Your task to perform on an android device: Is it going to rain today? Image 0: 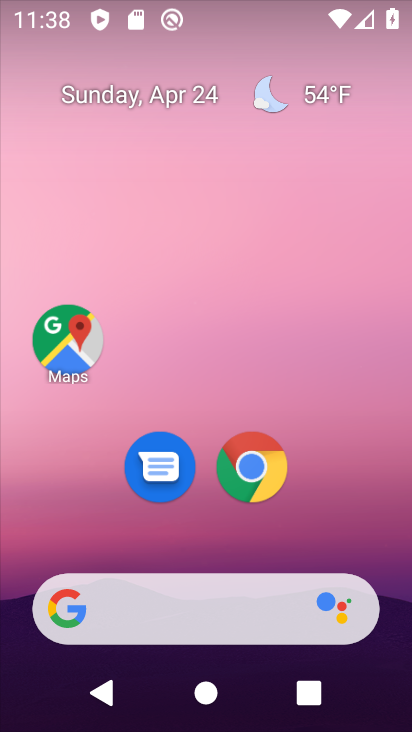
Step 0: drag from (218, 528) to (305, 144)
Your task to perform on an android device: Is it going to rain today? Image 1: 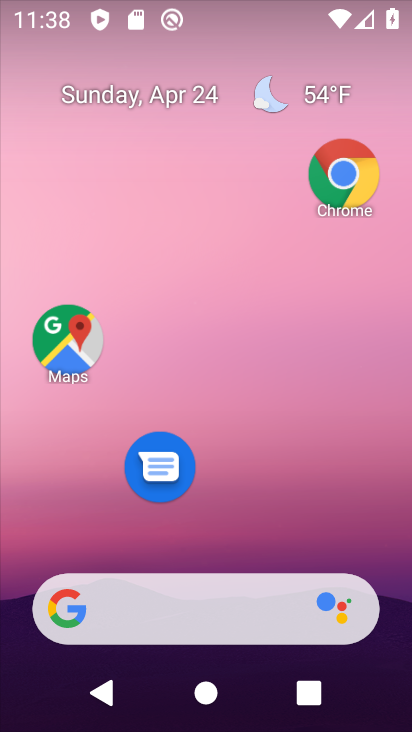
Step 1: click (172, 586)
Your task to perform on an android device: Is it going to rain today? Image 2: 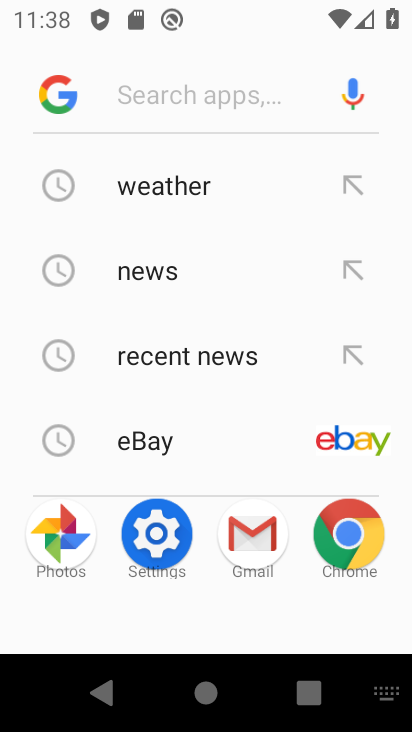
Step 2: click (171, 84)
Your task to perform on an android device: Is it going to rain today? Image 3: 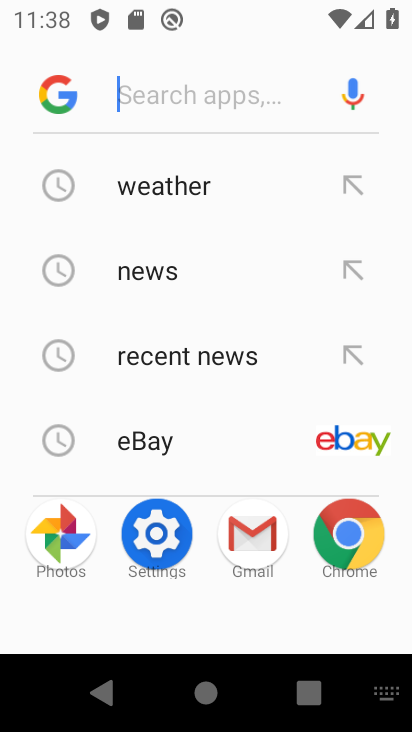
Step 3: type "rain today"
Your task to perform on an android device: Is it going to rain today? Image 4: 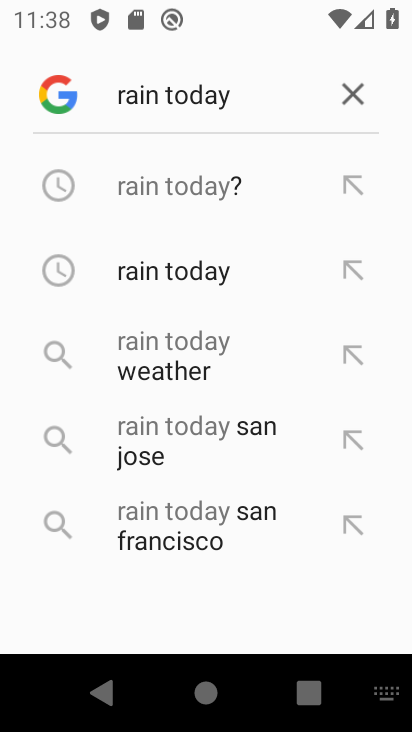
Step 4: click (171, 191)
Your task to perform on an android device: Is it going to rain today? Image 5: 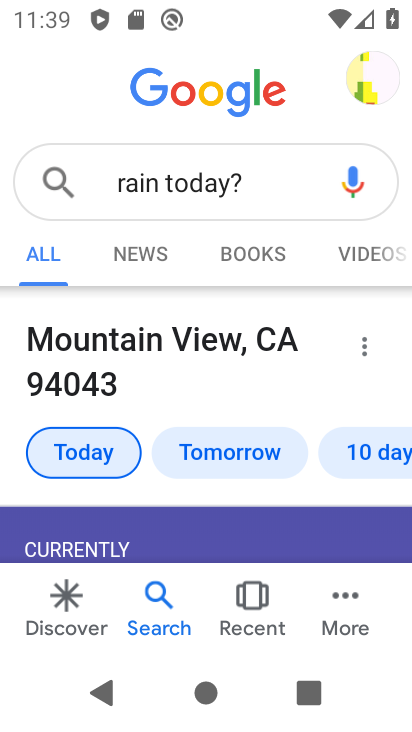
Step 5: task complete